Your task to perform on an android device: turn off improve location accuracy Image 0: 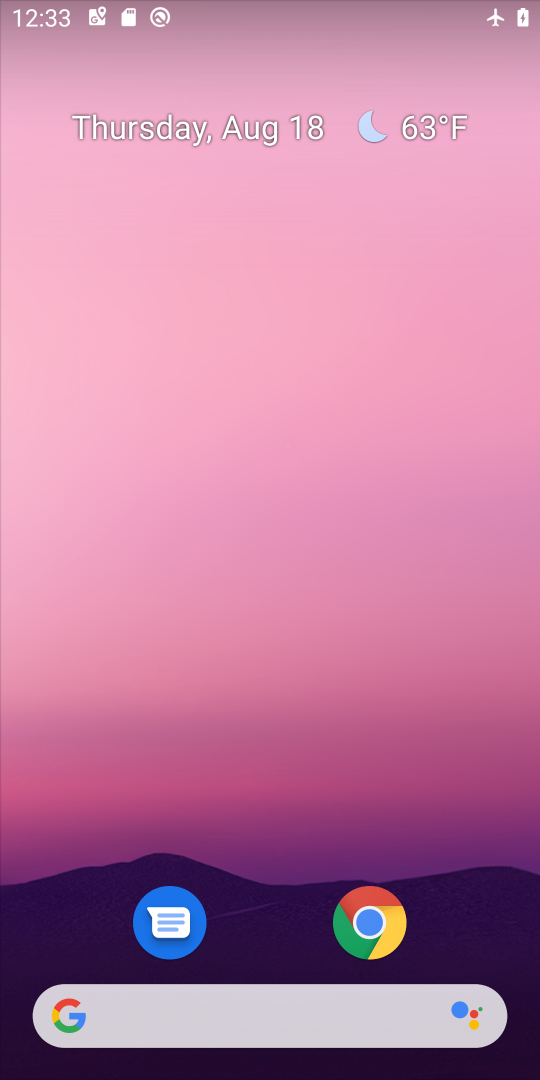
Step 0: drag from (264, 901) to (234, 257)
Your task to perform on an android device: turn off improve location accuracy Image 1: 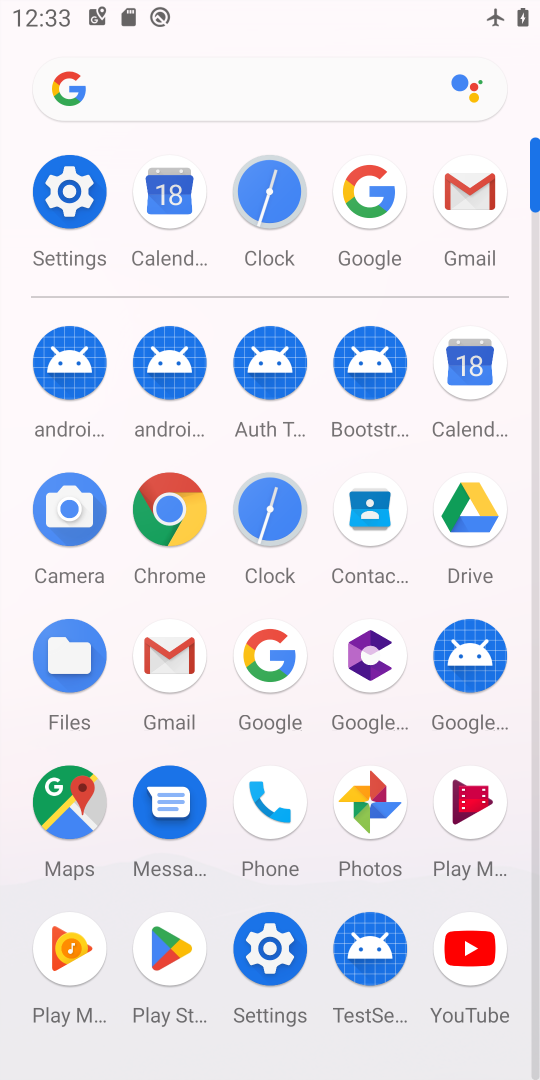
Step 1: click (69, 189)
Your task to perform on an android device: turn off improve location accuracy Image 2: 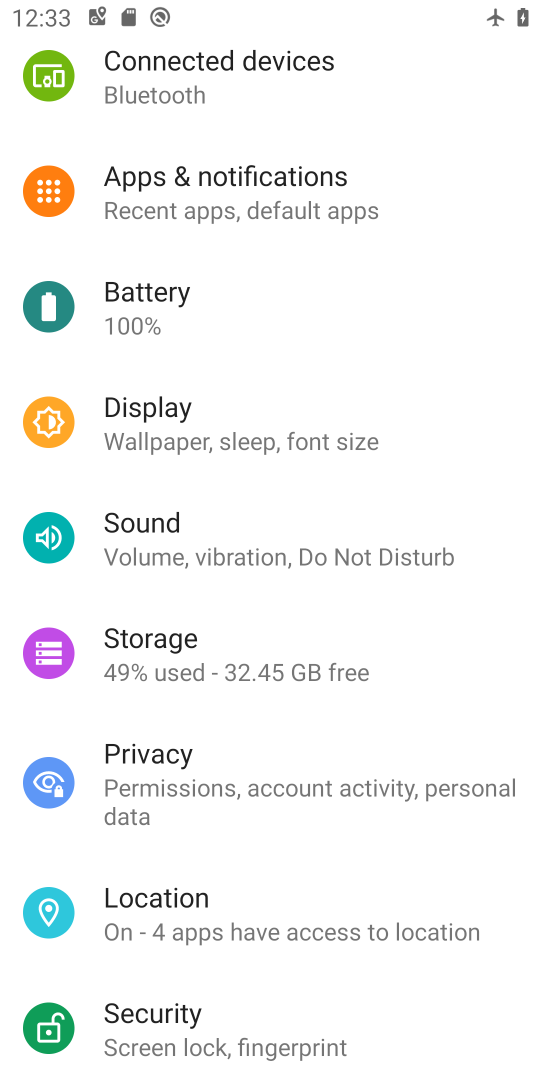
Step 2: click (165, 910)
Your task to perform on an android device: turn off improve location accuracy Image 3: 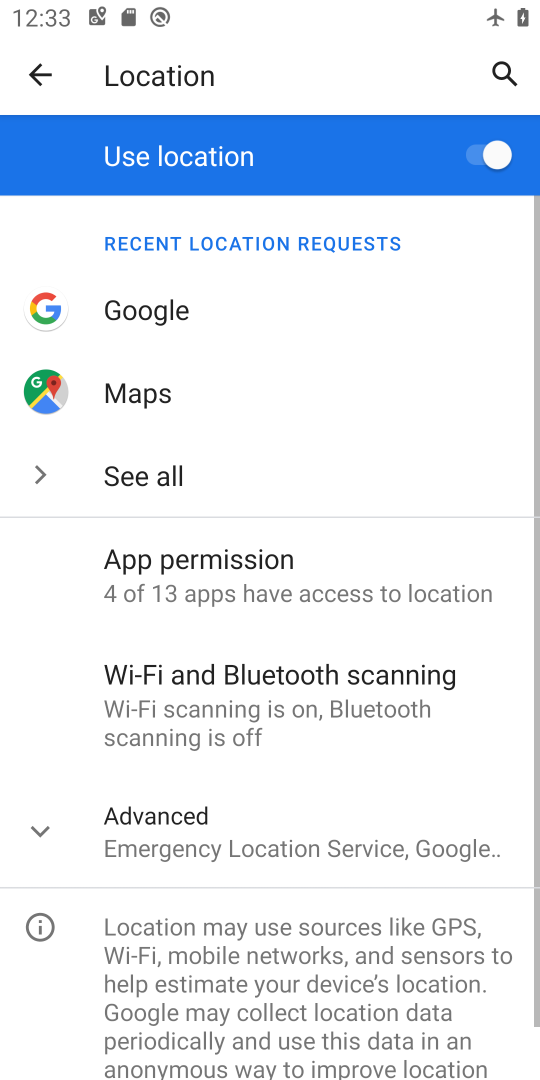
Step 3: click (45, 825)
Your task to perform on an android device: turn off improve location accuracy Image 4: 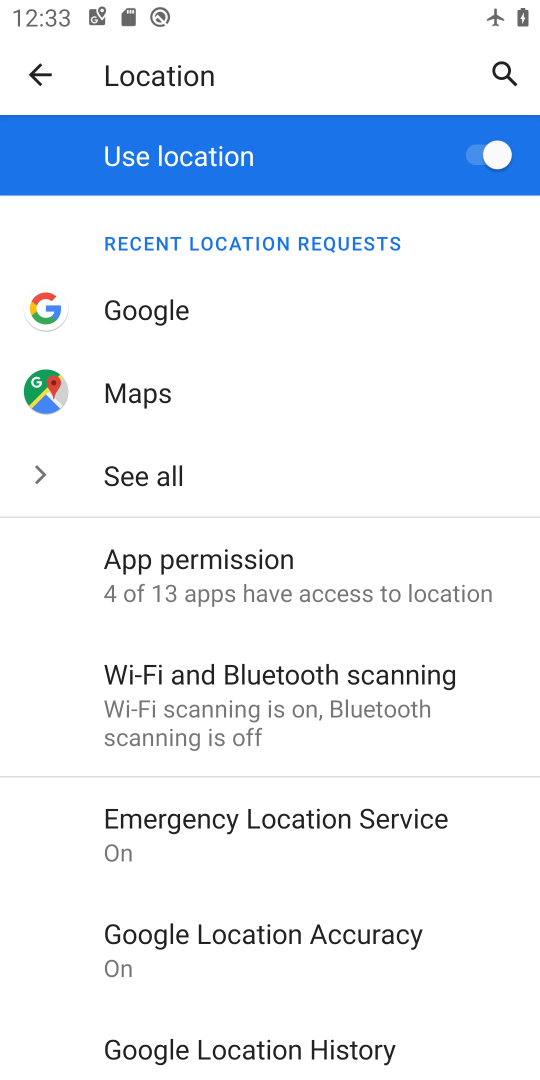
Step 4: click (238, 931)
Your task to perform on an android device: turn off improve location accuracy Image 5: 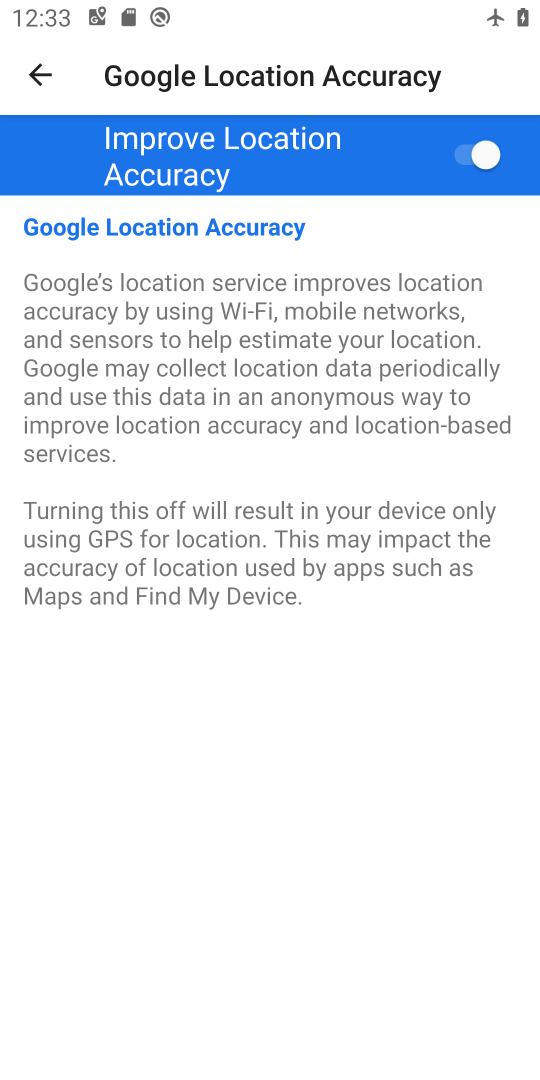
Step 5: click (476, 149)
Your task to perform on an android device: turn off improve location accuracy Image 6: 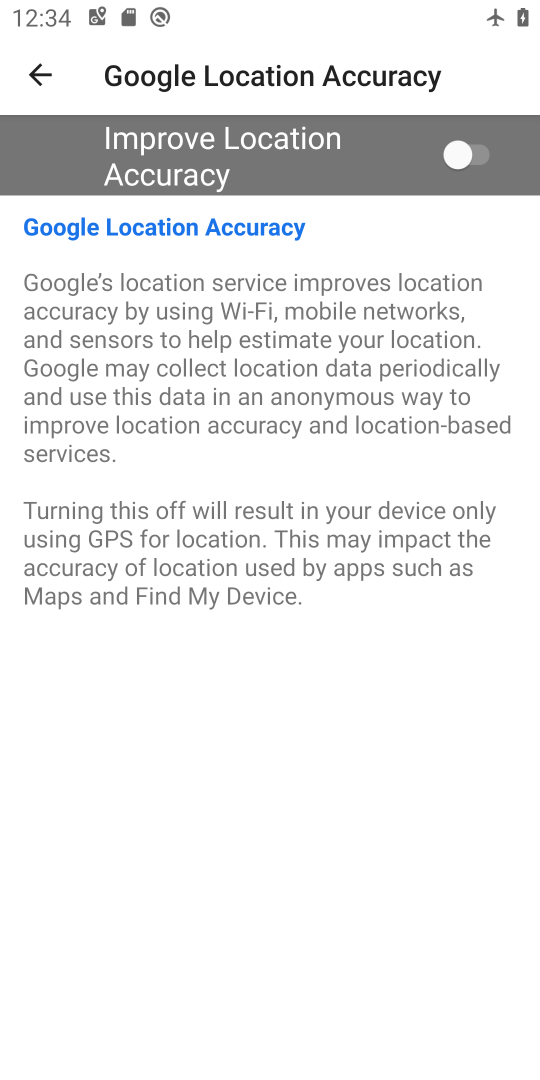
Step 6: task complete